Your task to perform on an android device: Open ESPN.com Image 0: 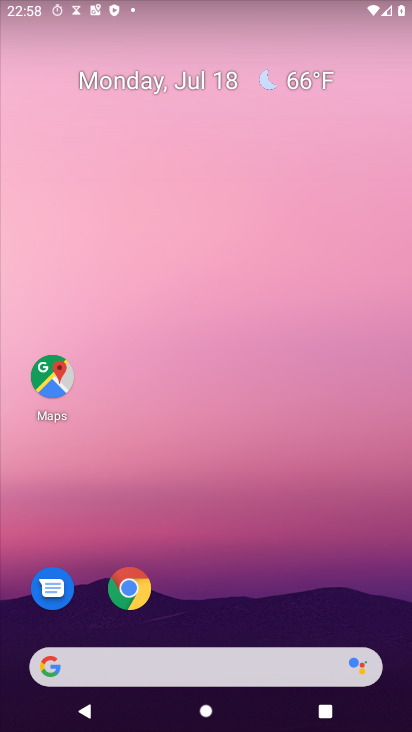
Step 0: click (126, 586)
Your task to perform on an android device: Open ESPN.com Image 1: 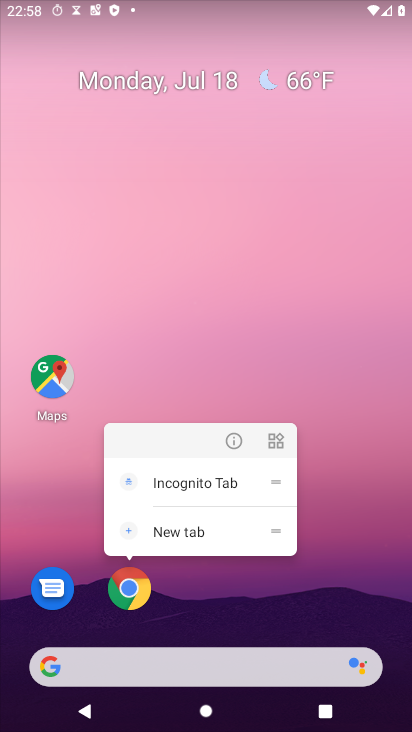
Step 1: click (129, 589)
Your task to perform on an android device: Open ESPN.com Image 2: 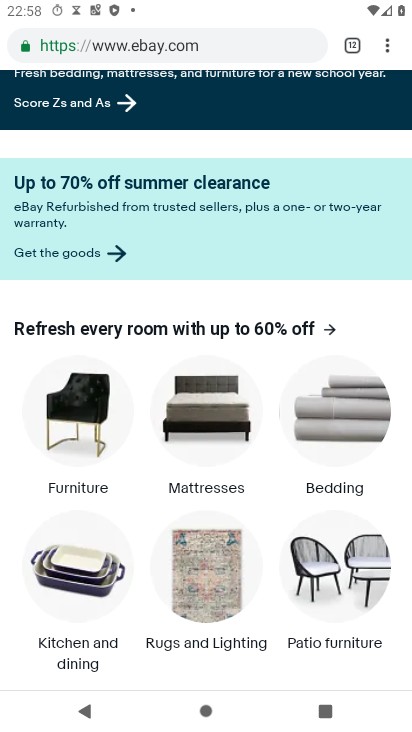
Step 2: drag from (392, 41) to (324, 76)
Your task to perform on an android device: Open ESPN.com Image 3: 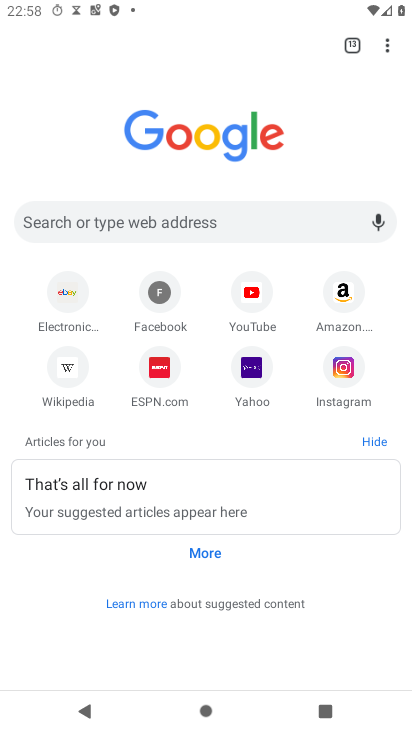
Step 3: click (155, 369)
Your task to perform on an android device: Open ESPN.com Image 4: 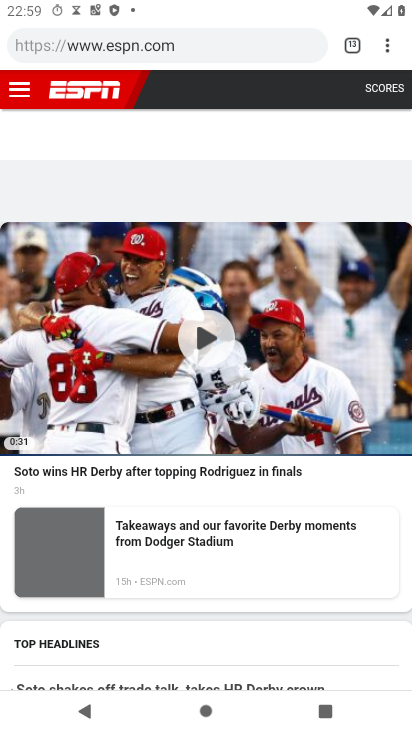
Step 4: task complete